Your task to perform on an android device: open chrome and create a bookmark for the current page Image 0: 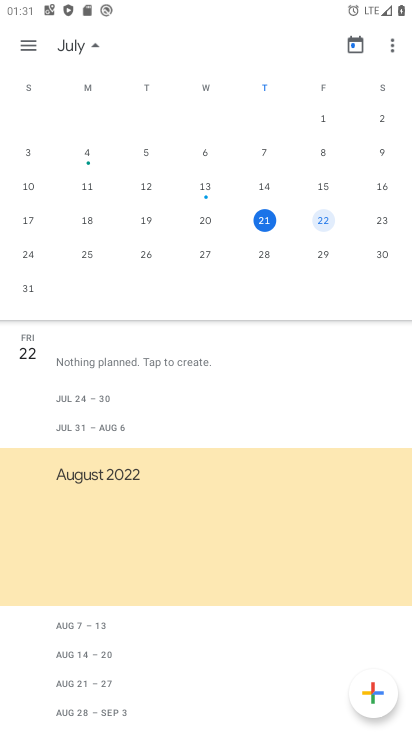
Step 0: press home button
Your task to perform on an android device: open chrome and create a bookmark for the current page Image 1: 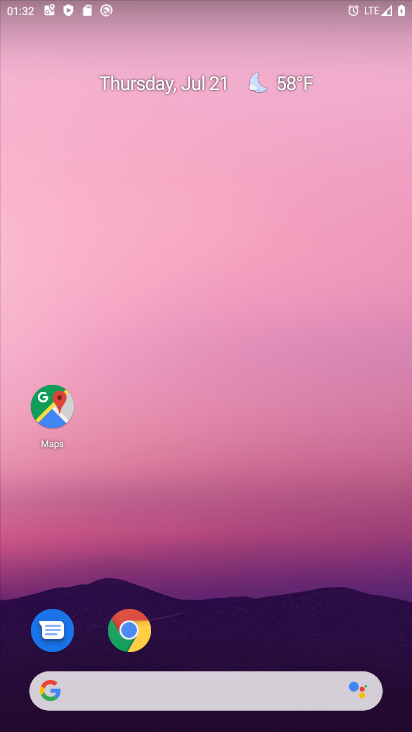
Step 1: click (118, 635)
Your task to perform on an android device: open chrome and create a bookmark for the current page Image 2: 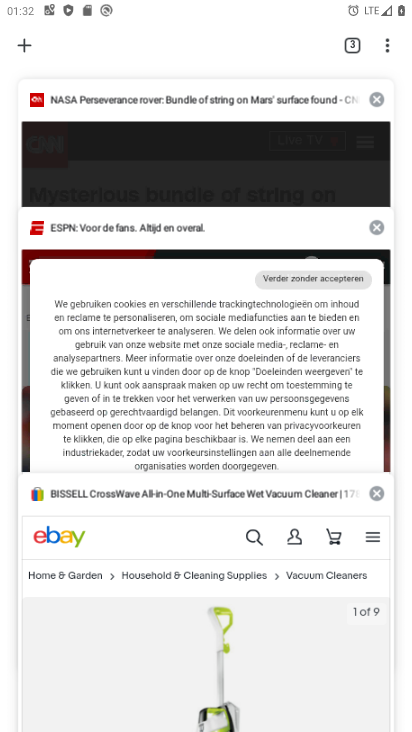
Step 2: click (131, 182)
Your task to perform on an android device: open chrome and create a bookmark for the current page Image 3: 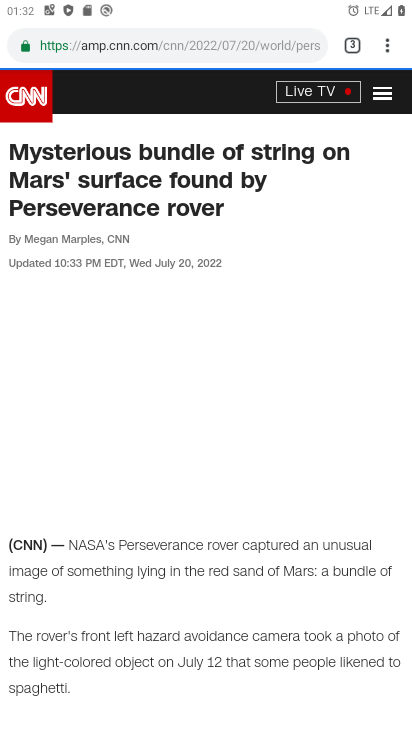
Step 3: click (395, 46)
Your task to perform on an android device: open chrome and create a bookmark for the current page Image 4: 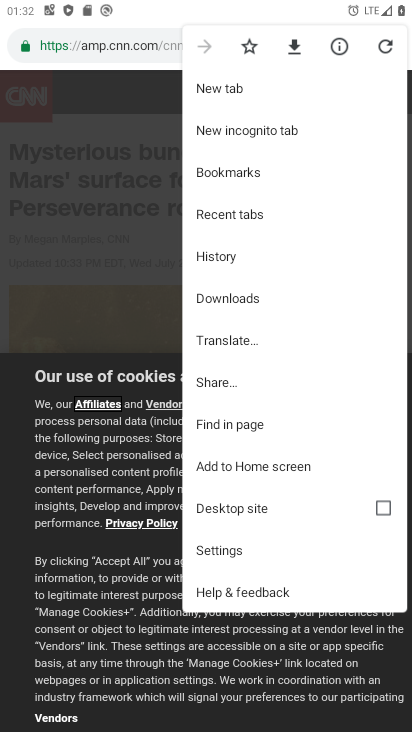
Step 4: click (250, 43)
Your task to perform on an android device: open chrome and create a bookmark for the current page Image 5: 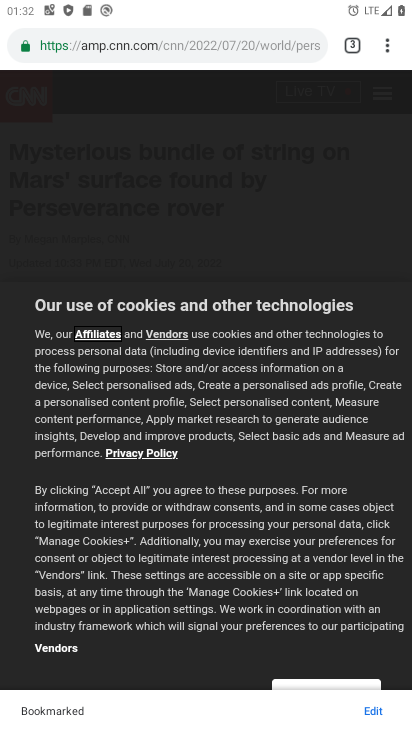
Step 5: task complete